Your task to perform on an android device: find photos in the google photos app Image 0: 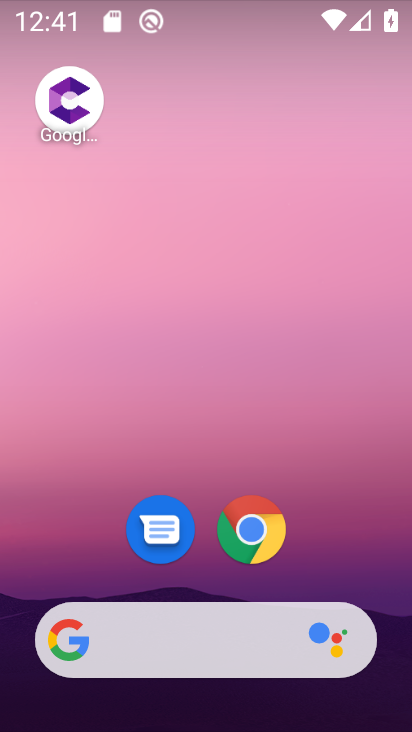
Step 0: drag from (303, 580) to (351, 181)
Your task to perform on an android device: find photos in the google photos app Image 1: 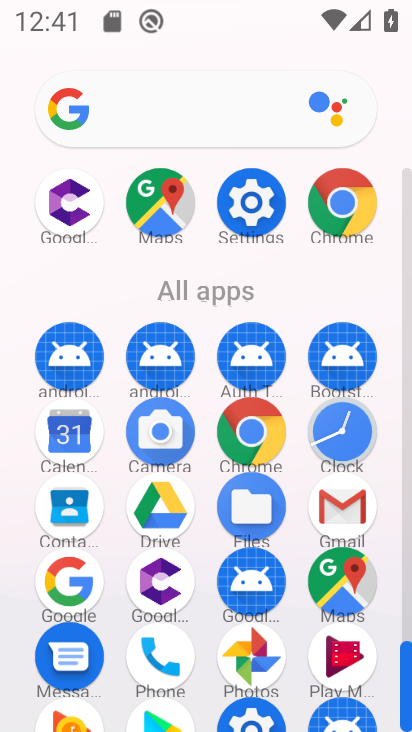
Step 1: drag from (280, 647) to (308, 457)
Your task to perform on an android device: find photos in the google photos app Image 2: 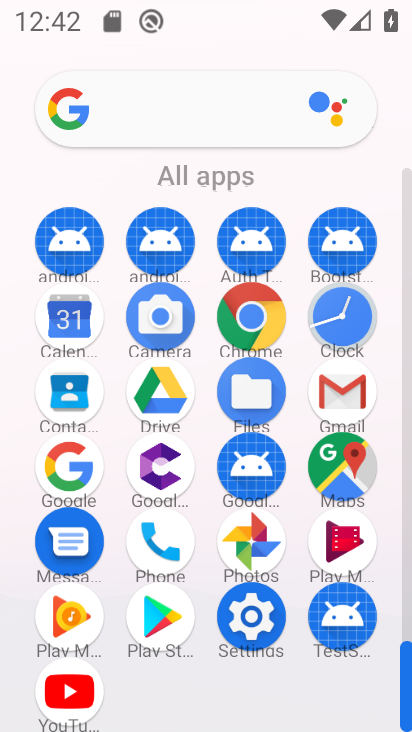
Step 2: click (247, 532)
Your task to perform on an android device: find photos in the google photos app Image 3: 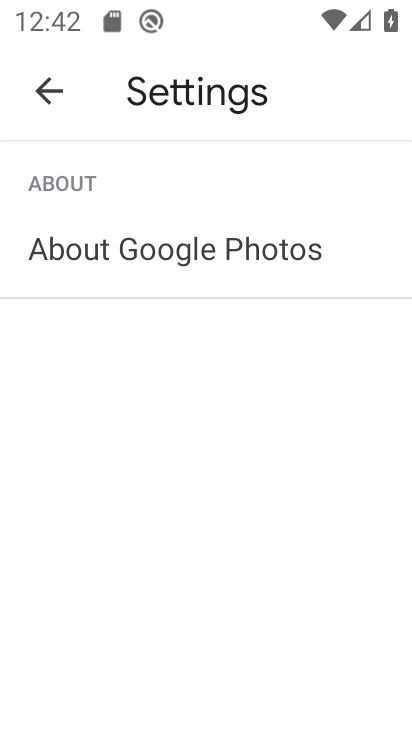
Step 3: click (55, 90)
Your task to perform on an android device: find photos in the google photos app Image 4: 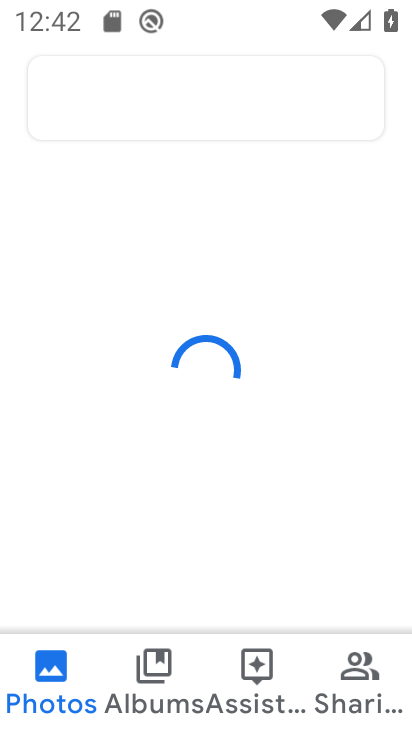
Step 4: click (153, 670)
Your task to perform on an android device: find photos in the google photos app Image 5: 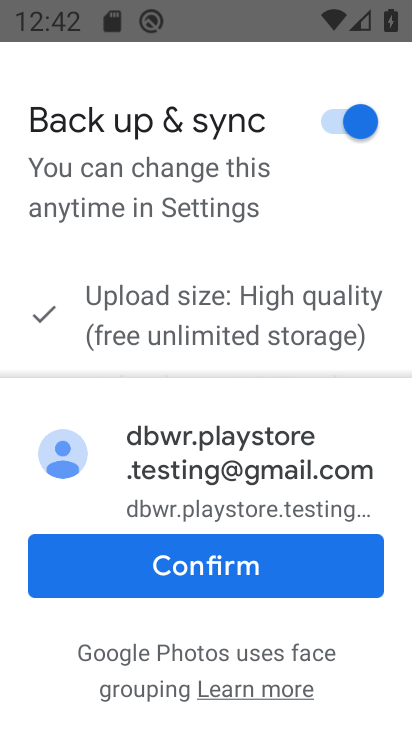
Step 5: click (40, 325)
Your task to perform on an android device: find photos in the google photos app Image 6: 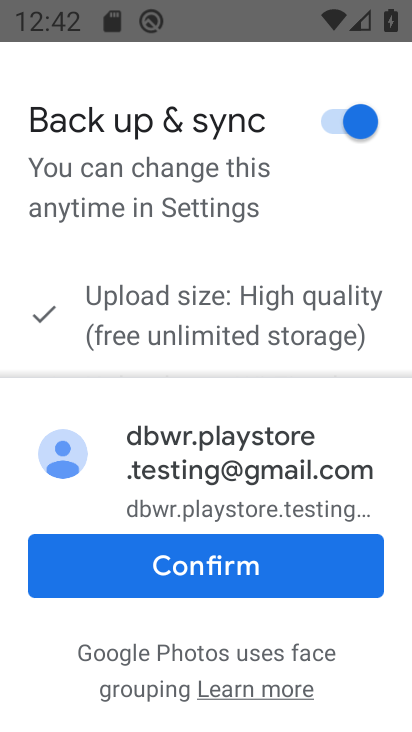
Step 6: drag from (197, 107) to (176, 578)
Your task to perform on an android device: find photos in the google photos app Image 7: 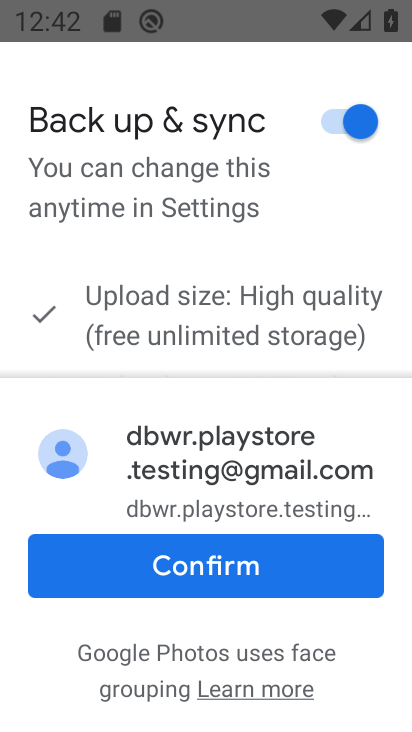
Step 7: click (202, 546)
Your task to perform on an android device: find photos in the google photos app Image 8: 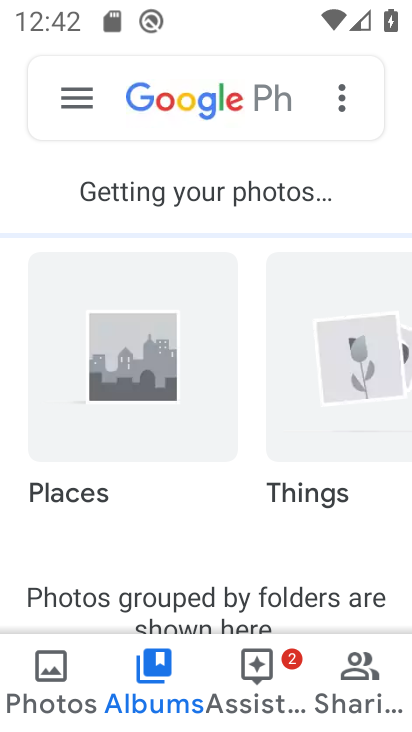
Step 8: task complete